Your task to perform on an android device: Clear all items from cart on ebay.com. Image 0: 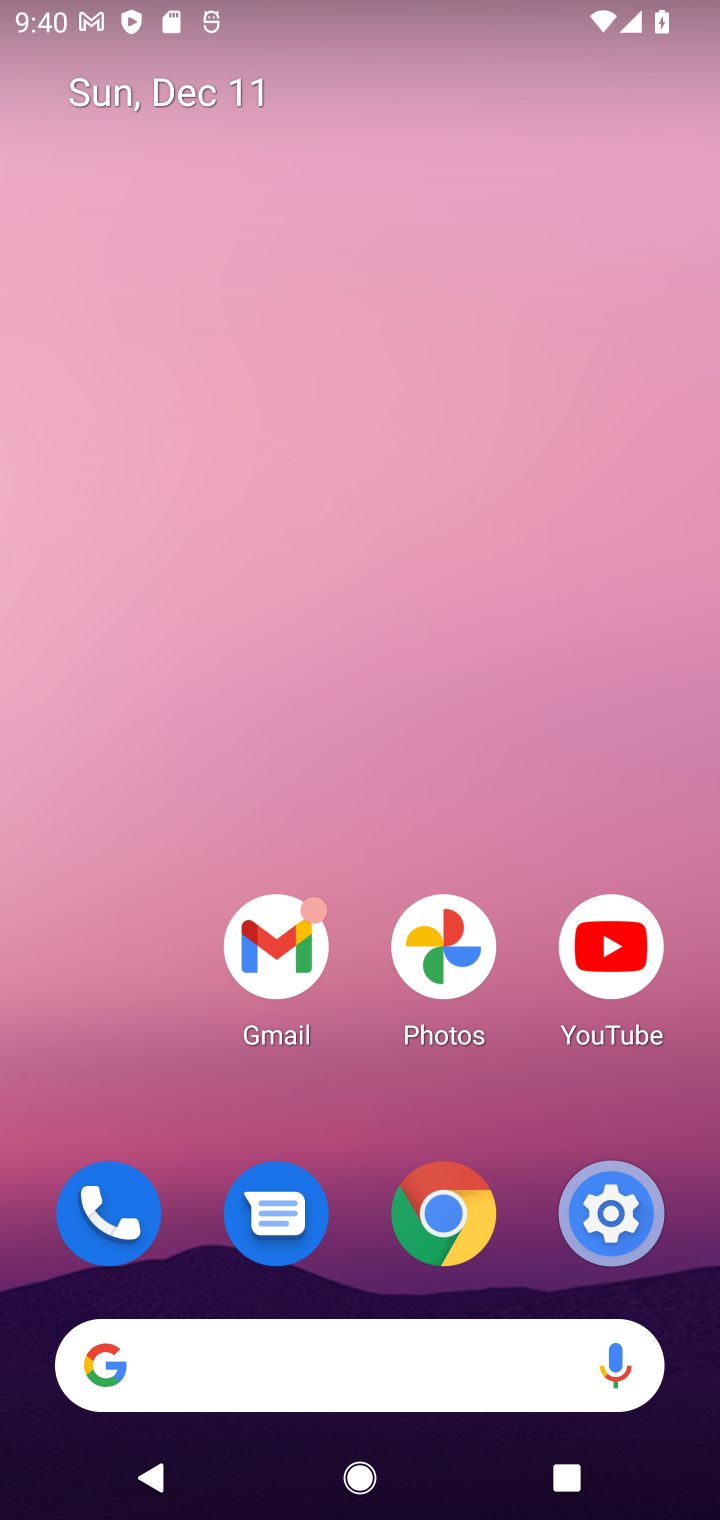
Step 0: click (289, 1378)
Your task to perform on an android device: Clear all items from cart on ebay.com. Image 1: 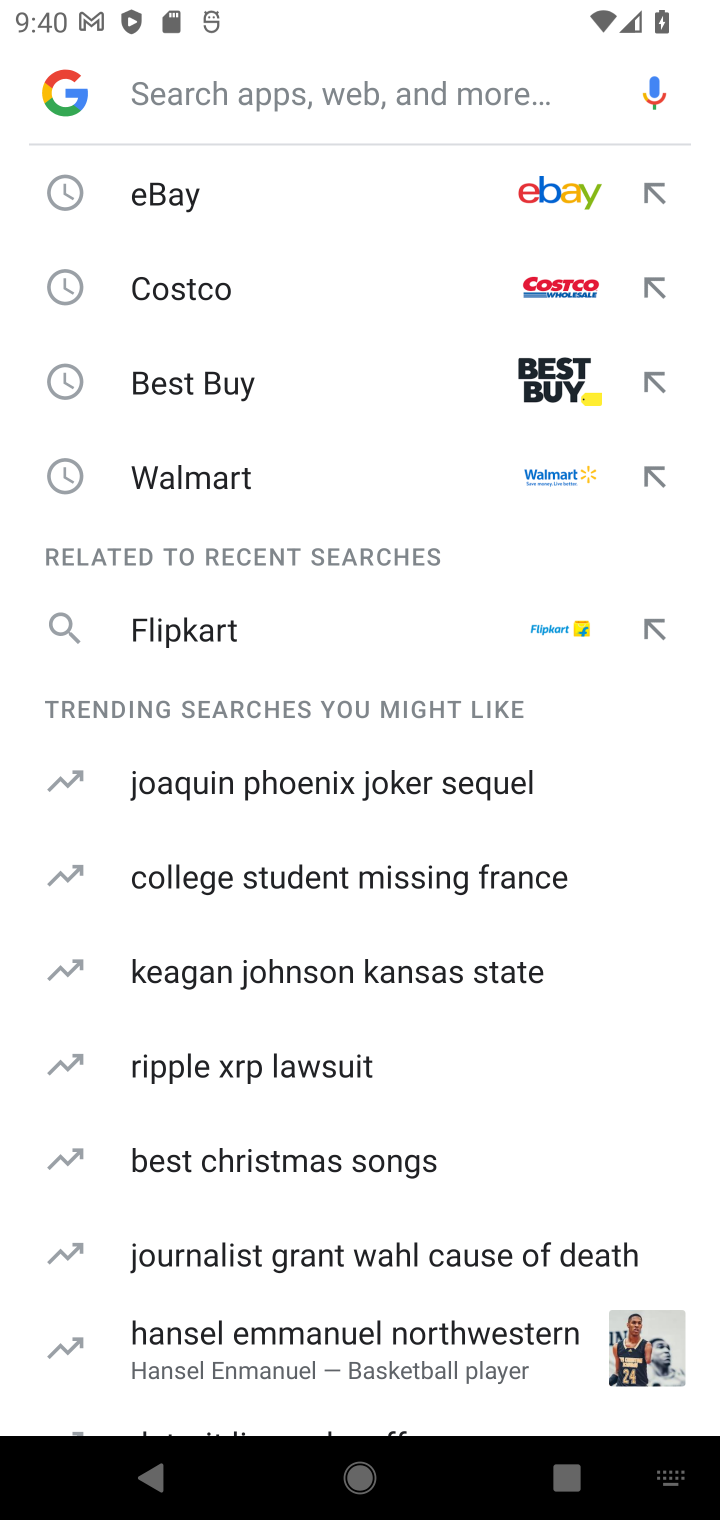
Step 1: type "ebay.com"
Your task to perform on an android device: Clear all items from cart on ebay.com. Image 2: 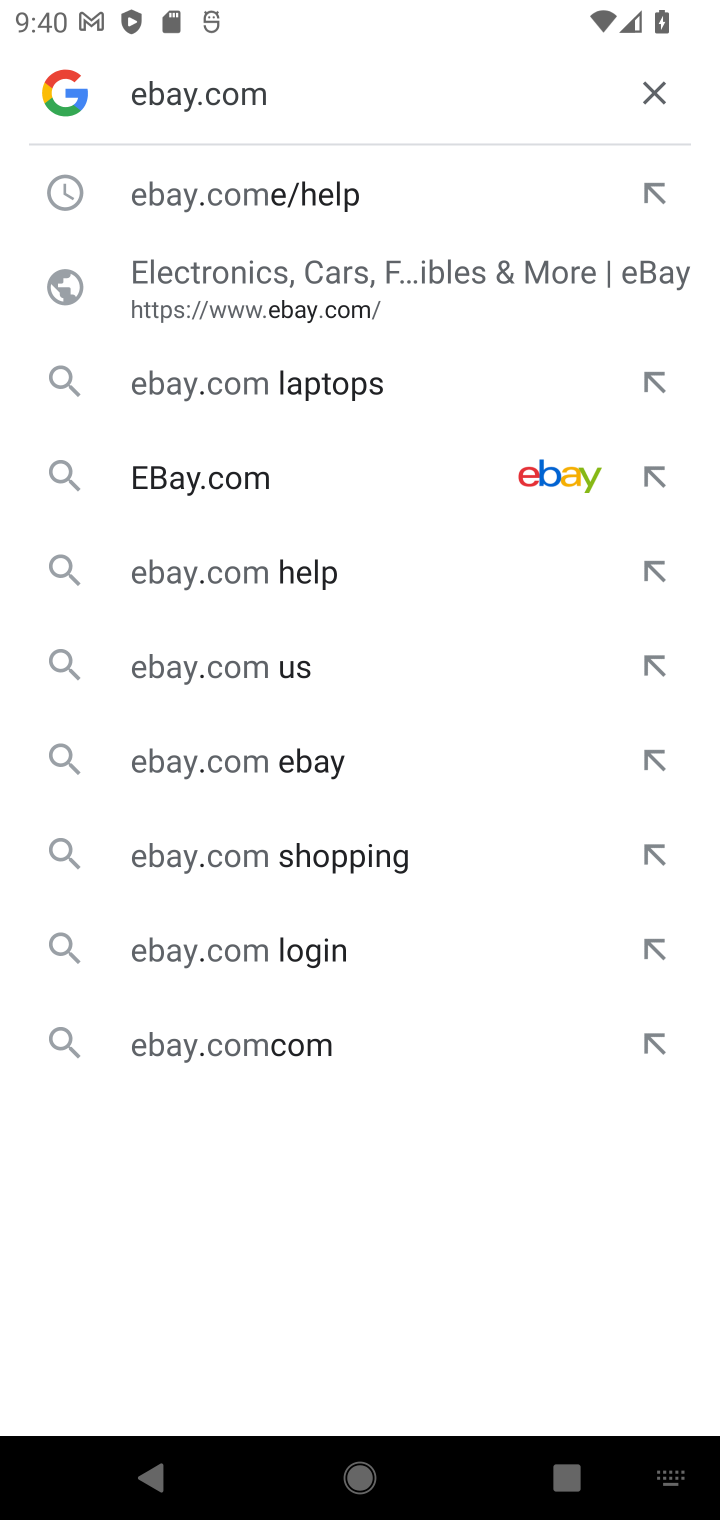
Step 2: click (256, 219)
Your task to perform on an android device: Clear all items from cart on ebay.com. Image 3: 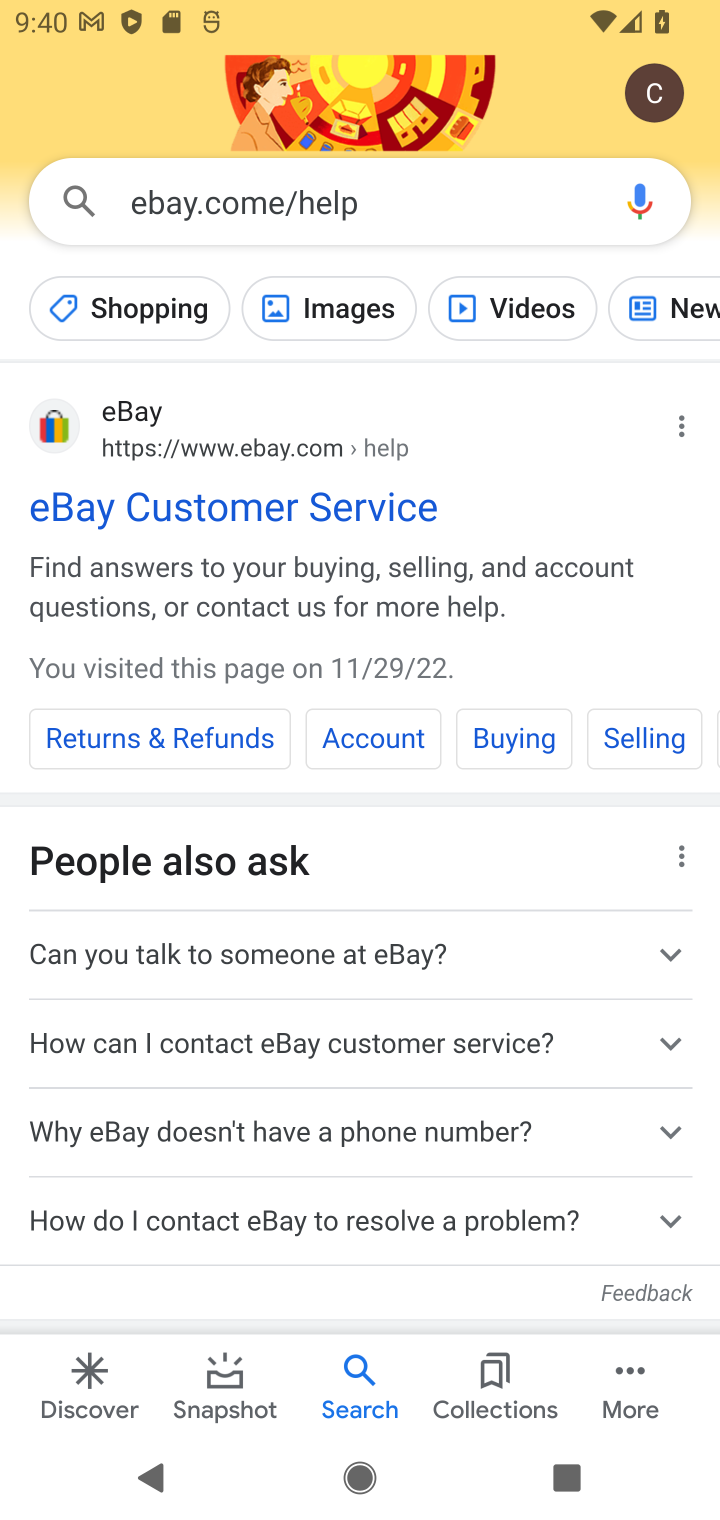
Step 3: click (201, 498)
Your task to perform on an android device: Clear all items from cart on ebay.com. Image 4: 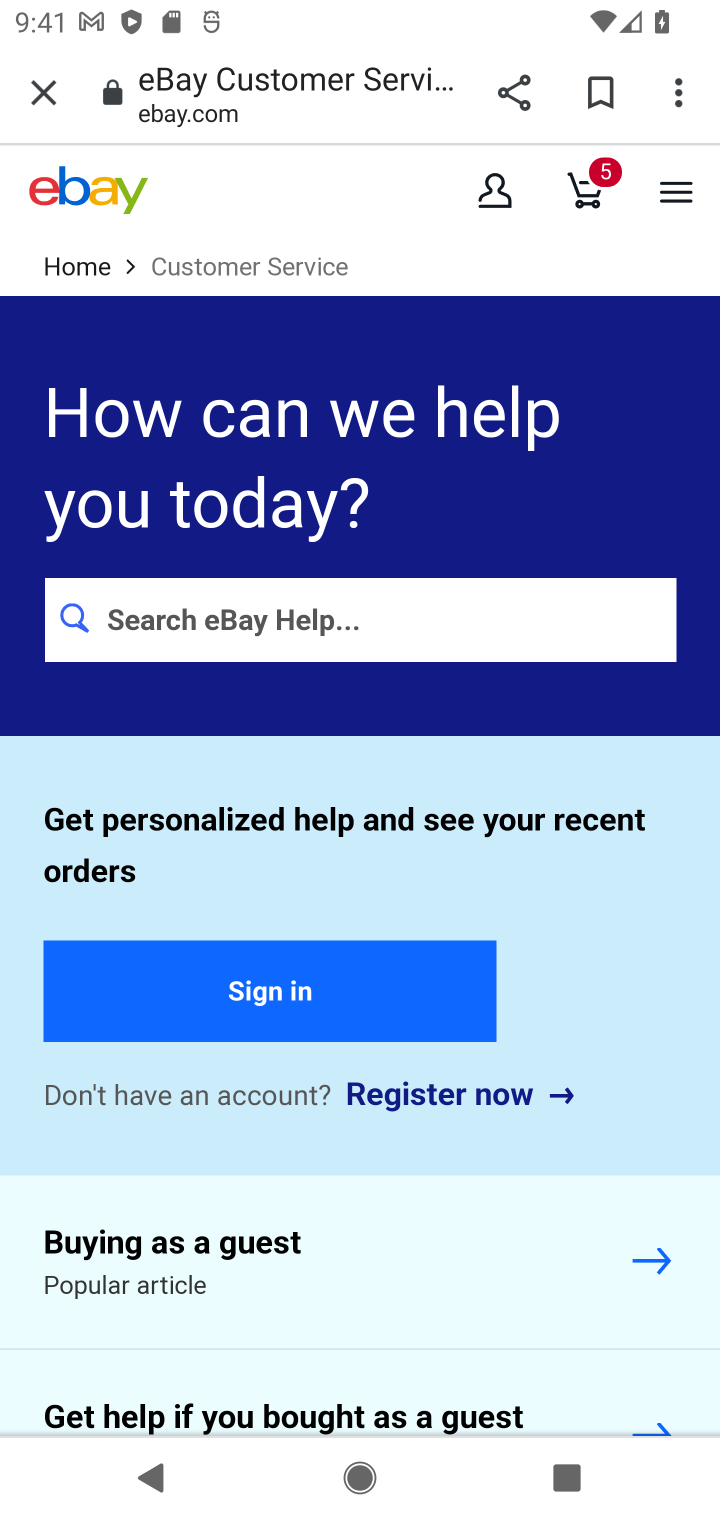
Step 4: drag from (164, 1211) to (242, 398)
Your task to perform on an android device: Clear all items from cart on ebay.com. Image 5: 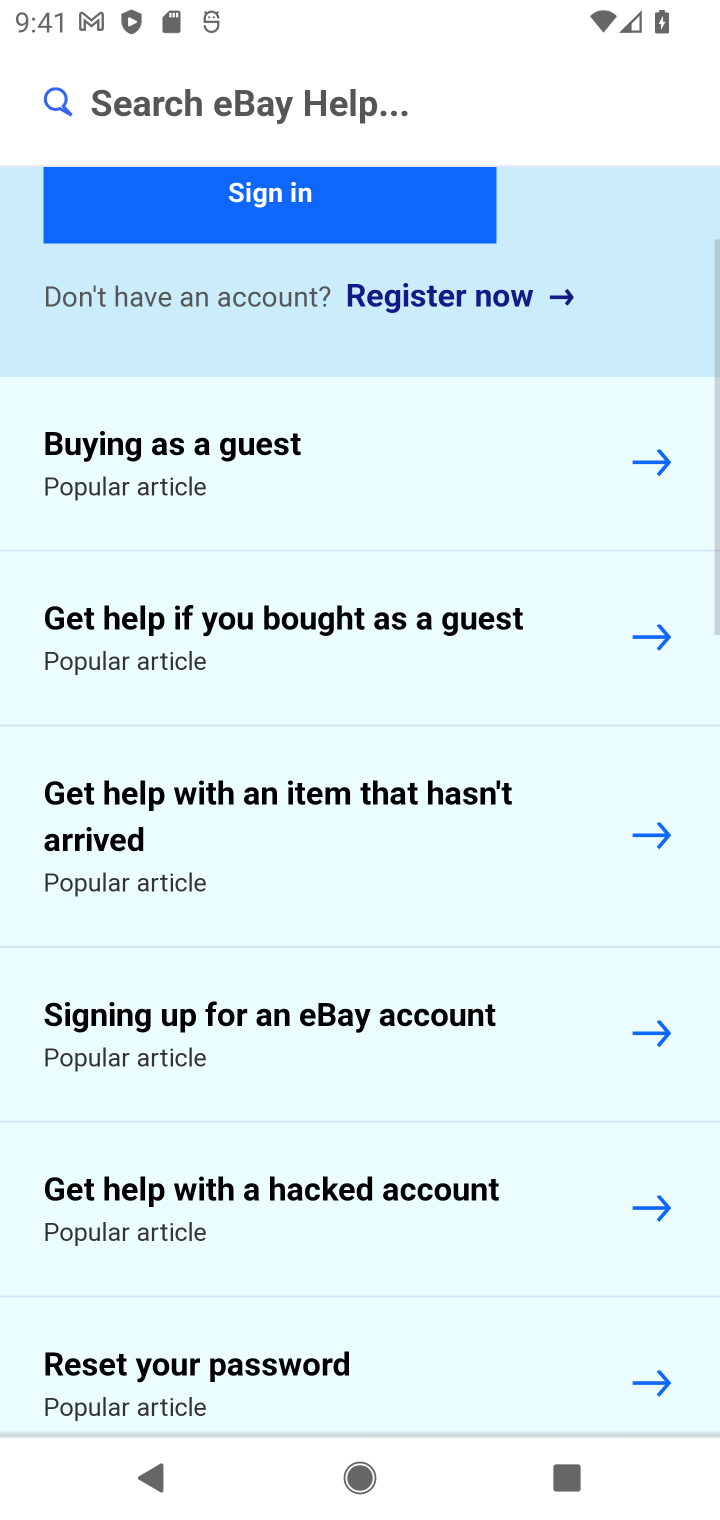
Step 5: drag from (346, 543) to (322, 1492)
Your task to perform on an android device: Clear all items from cart on ebay.com. Image 6: 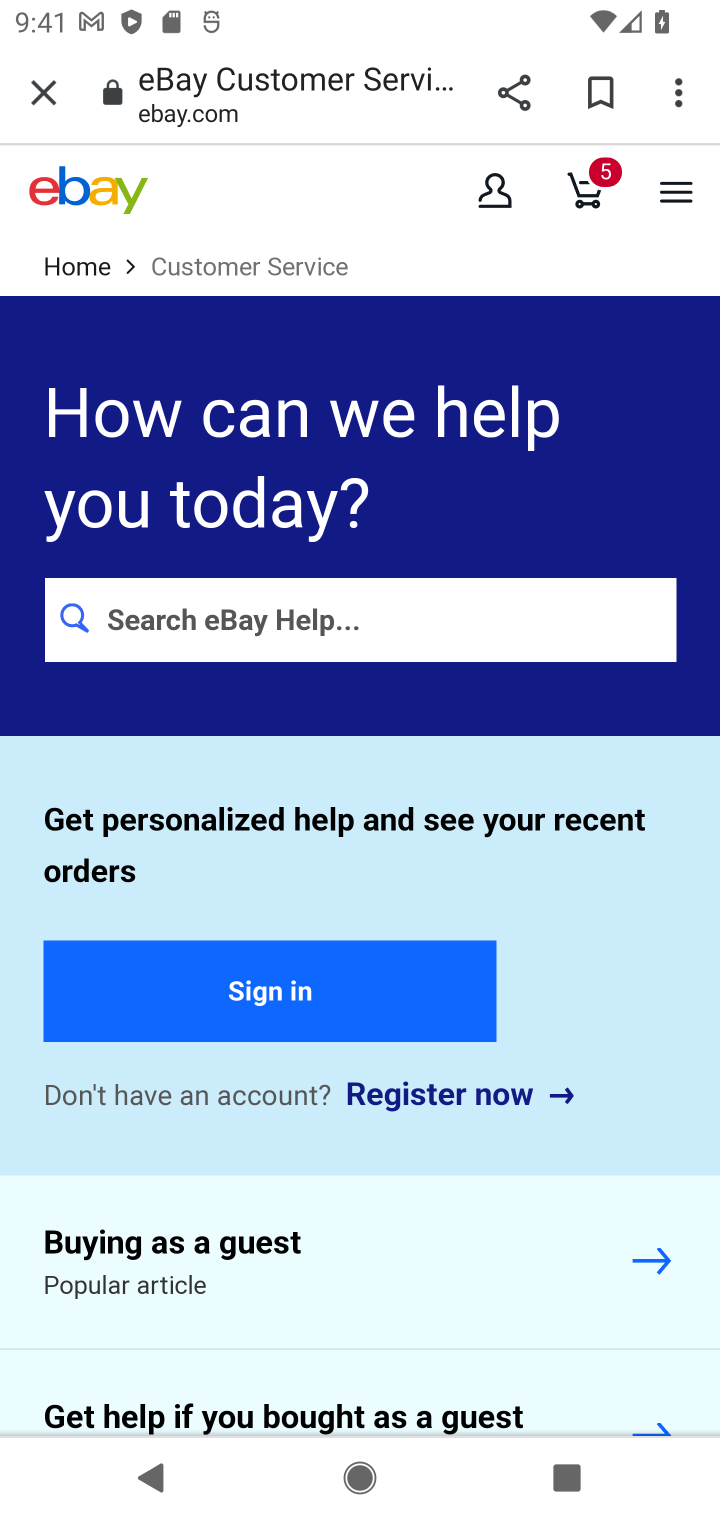
Step 6: click (582, 208)
Your task to perform on an android device: Clear all items from cart on ebay.com. Image 7: 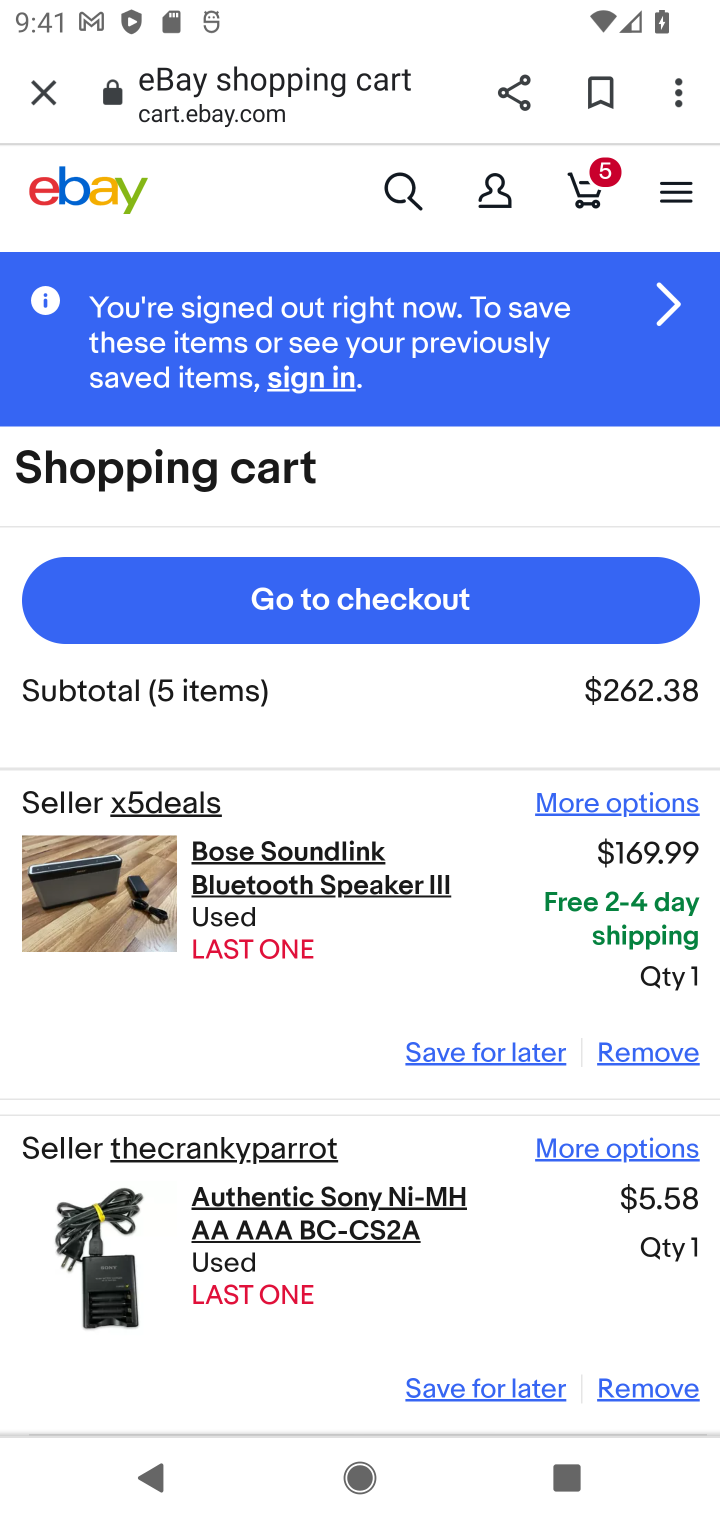
Step 7: click (605, 1055)
Your task to perform on an android device: Clear all items from cart on ebay.com. Image 8: 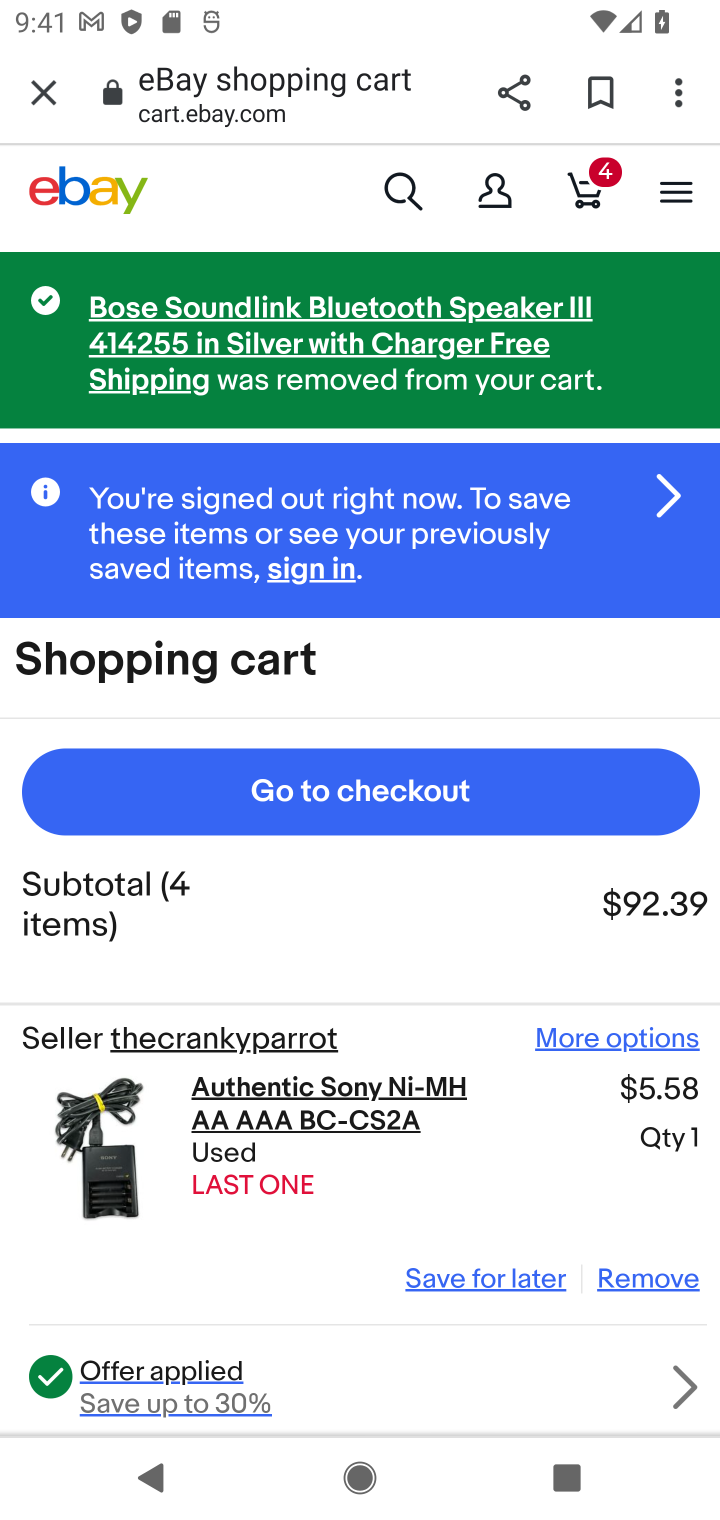
Step 8: click (609, 1296)
Your task to perform on an android device: Clear all items from cart on ebay.com. Image 9: 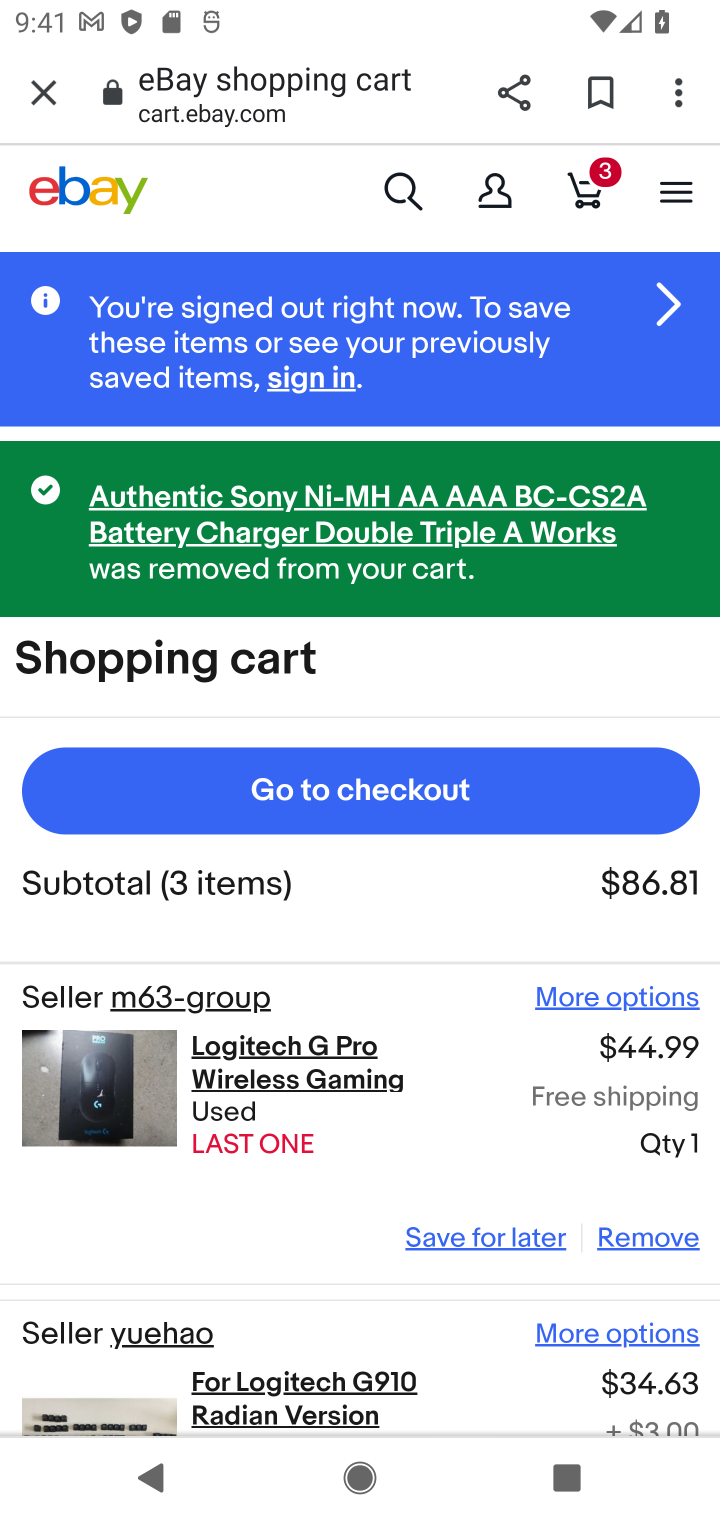
Step 9: click (615, 1241)
Your task to perform on an android device: Clear all items from cart on ebay.com. Image 10: 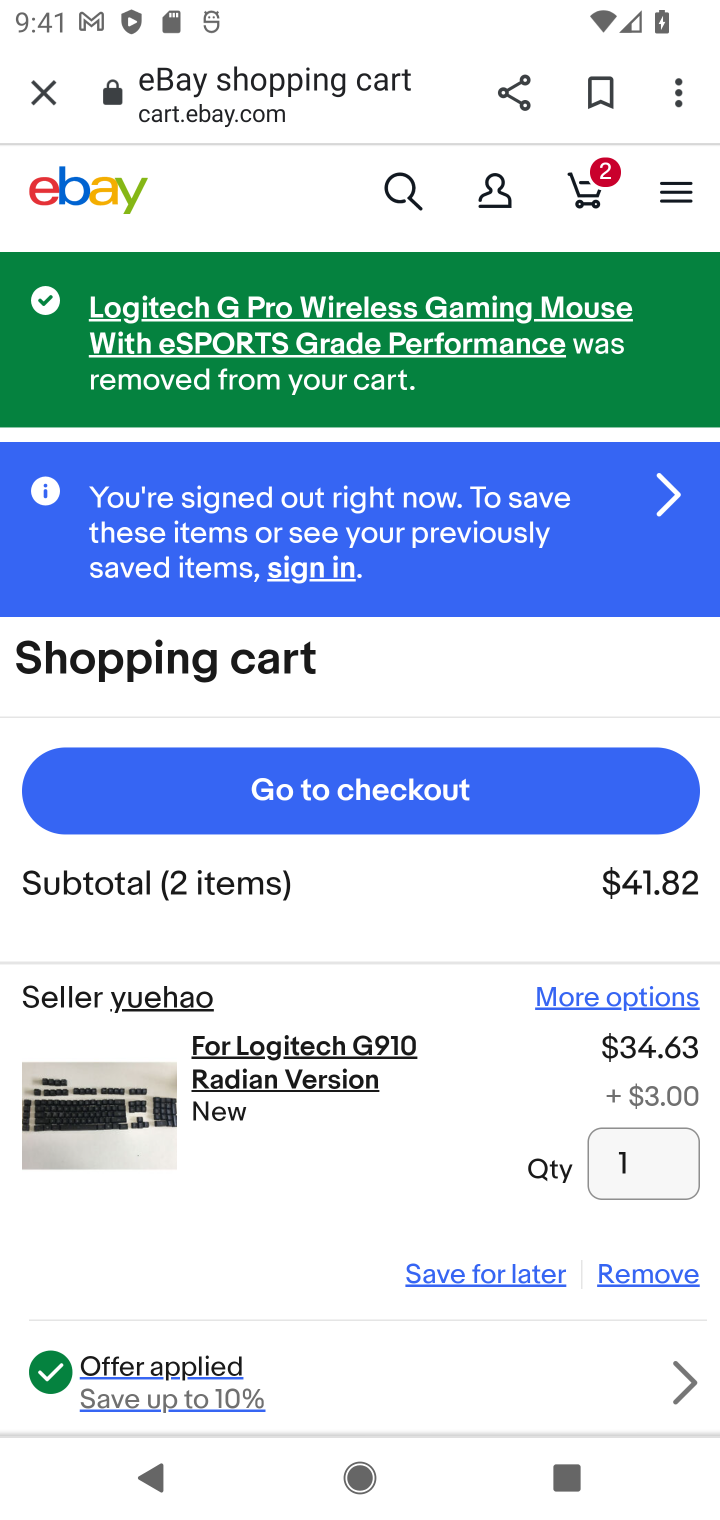
Step 10: click (609, 1276)
Your task to perform on an android device: Clear all items from cart on ebay.com. Image 11: 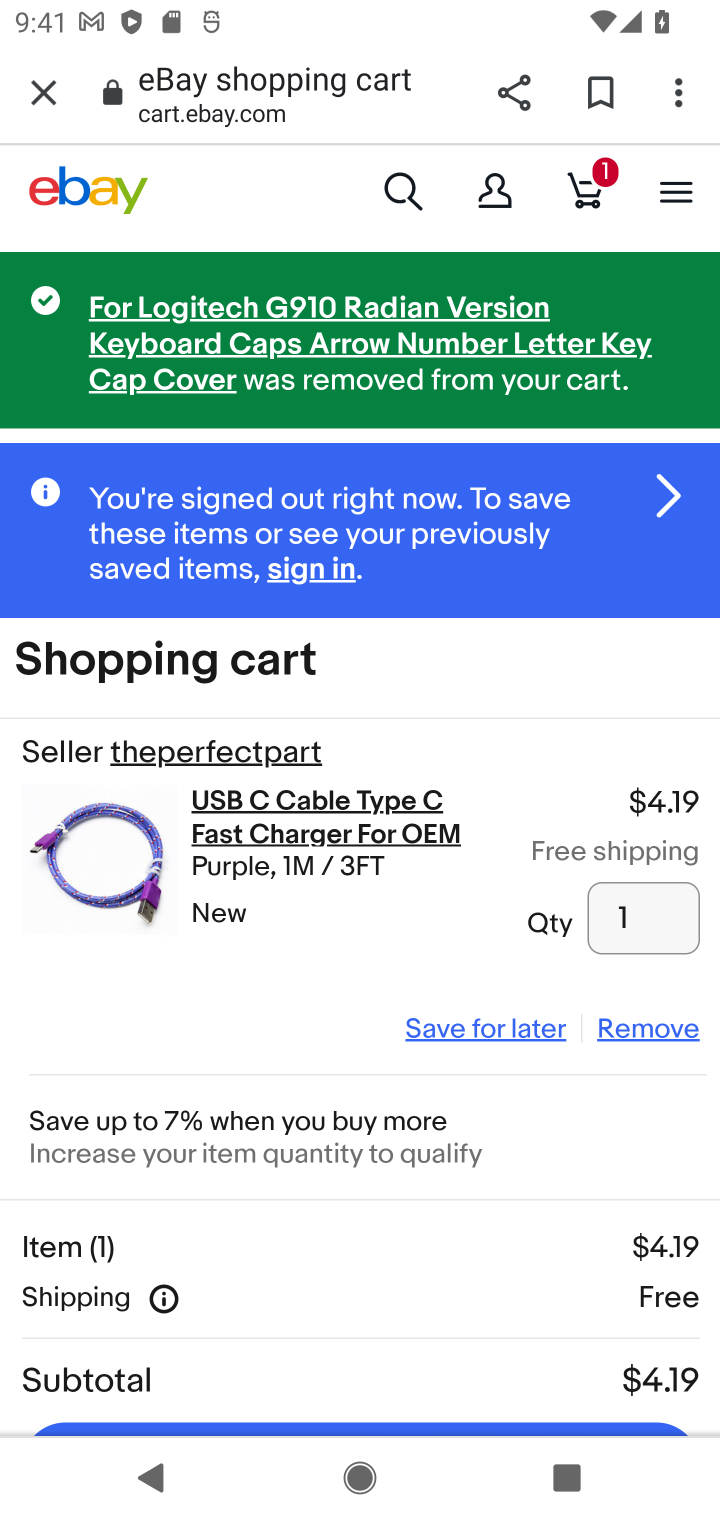
Step 11: click (664, 1036)
Your task to perform on an android device: Clear all items from cart on ebay.com. Image 12: 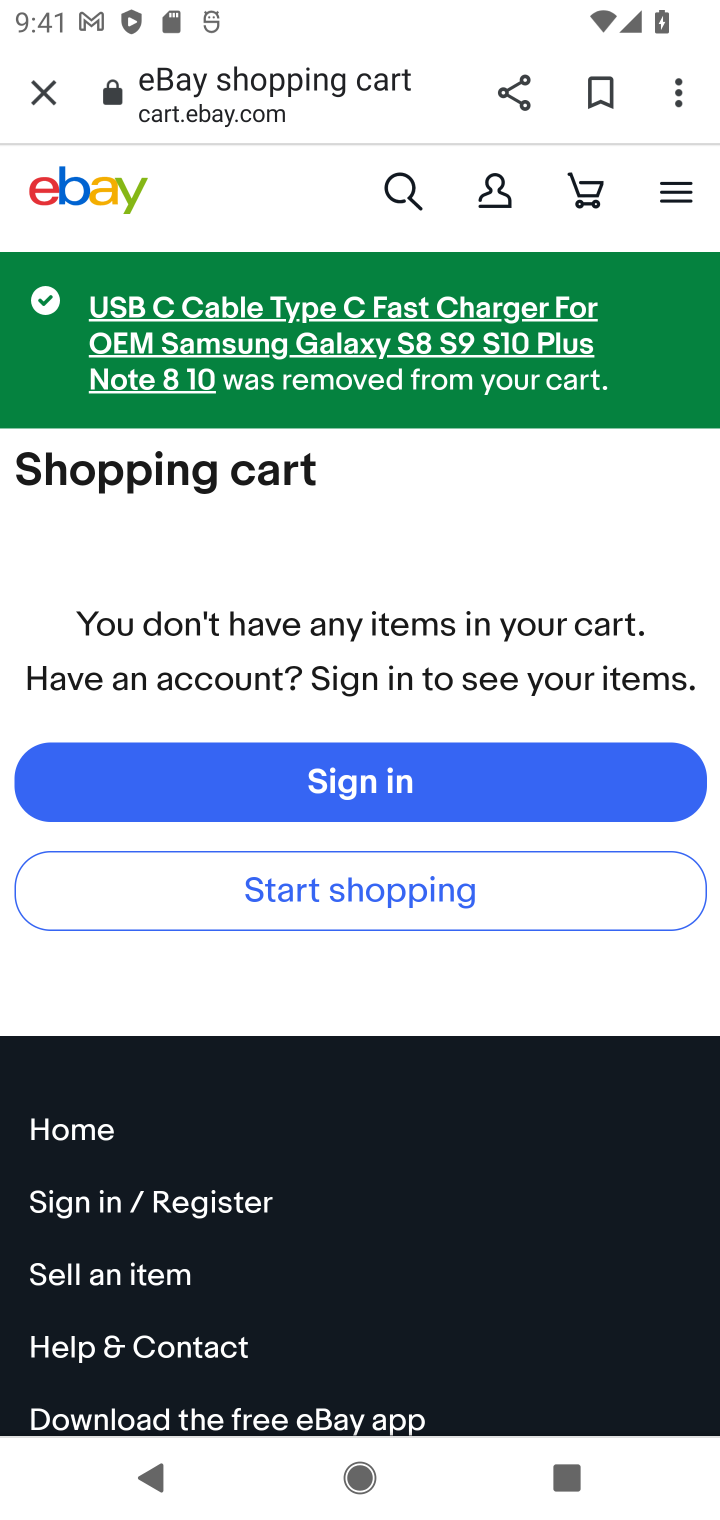
Step 12: task complete